Your task to perform on an android device: When is my next appointment? Image 0: 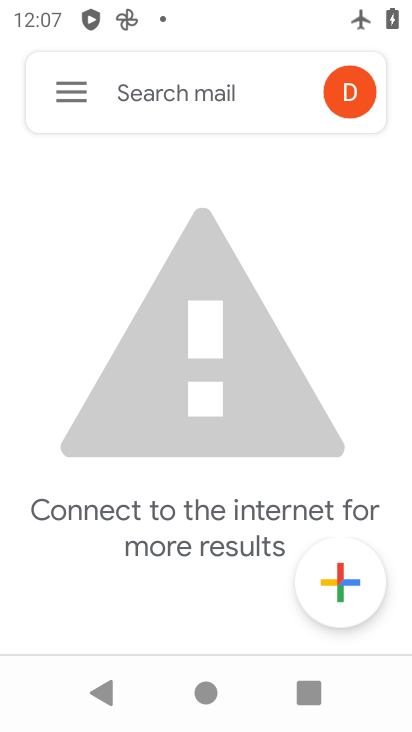
Step 0: press home button
Your task to perform on an android device: When is my next appointment? Image 1: 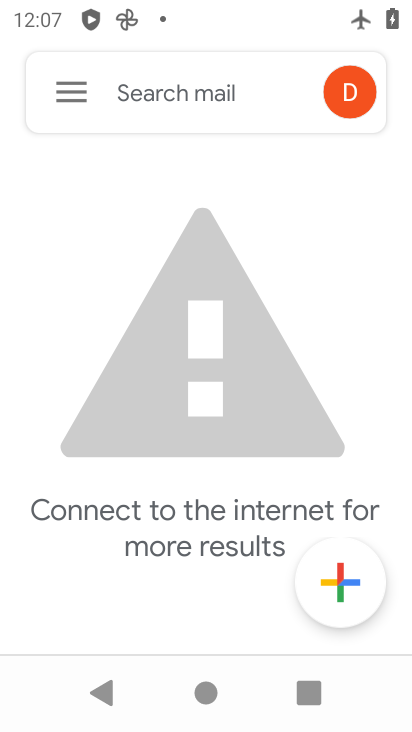
Step 1: press home button
Your task to perform on an android device: When is my next appointment? Image 2: 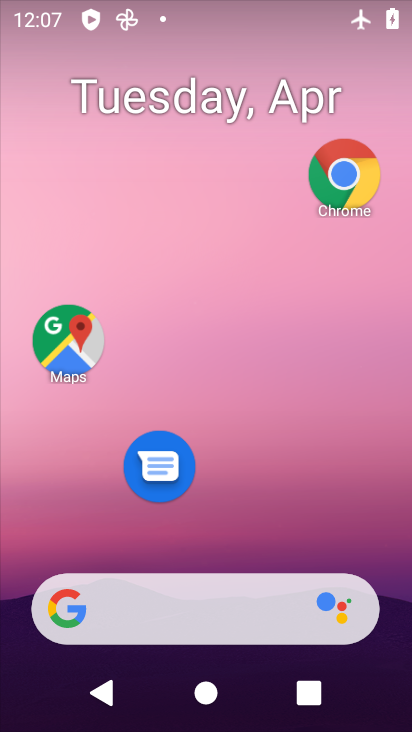
Step 2: drag from (294, 594) to (325, 23)
Your task to perform on an android device: When is my next appointment? Image 3: 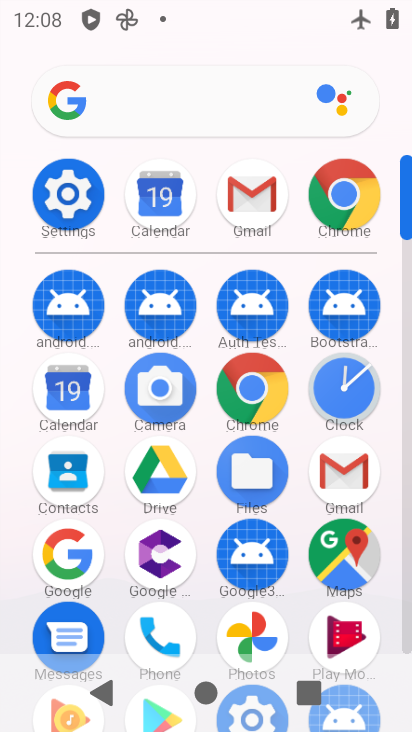
Step 3: click (65, 411)
Your task to perform on an android device: When is my next appointment? Image 4: 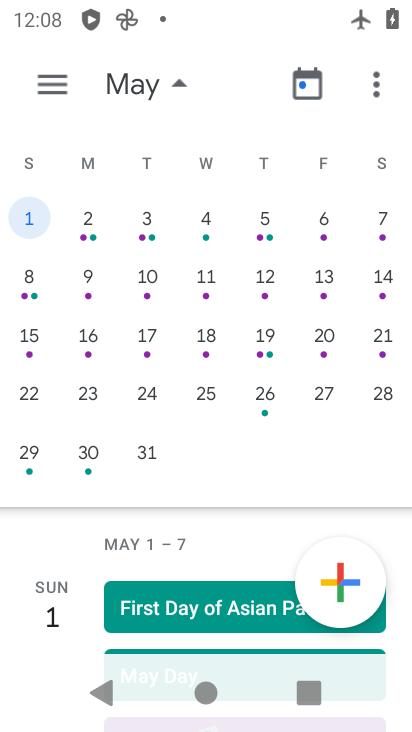
Step 4: task complete